Your task to perform on an android device: Add bose soundlink mini to the cart on target.com Image 0: 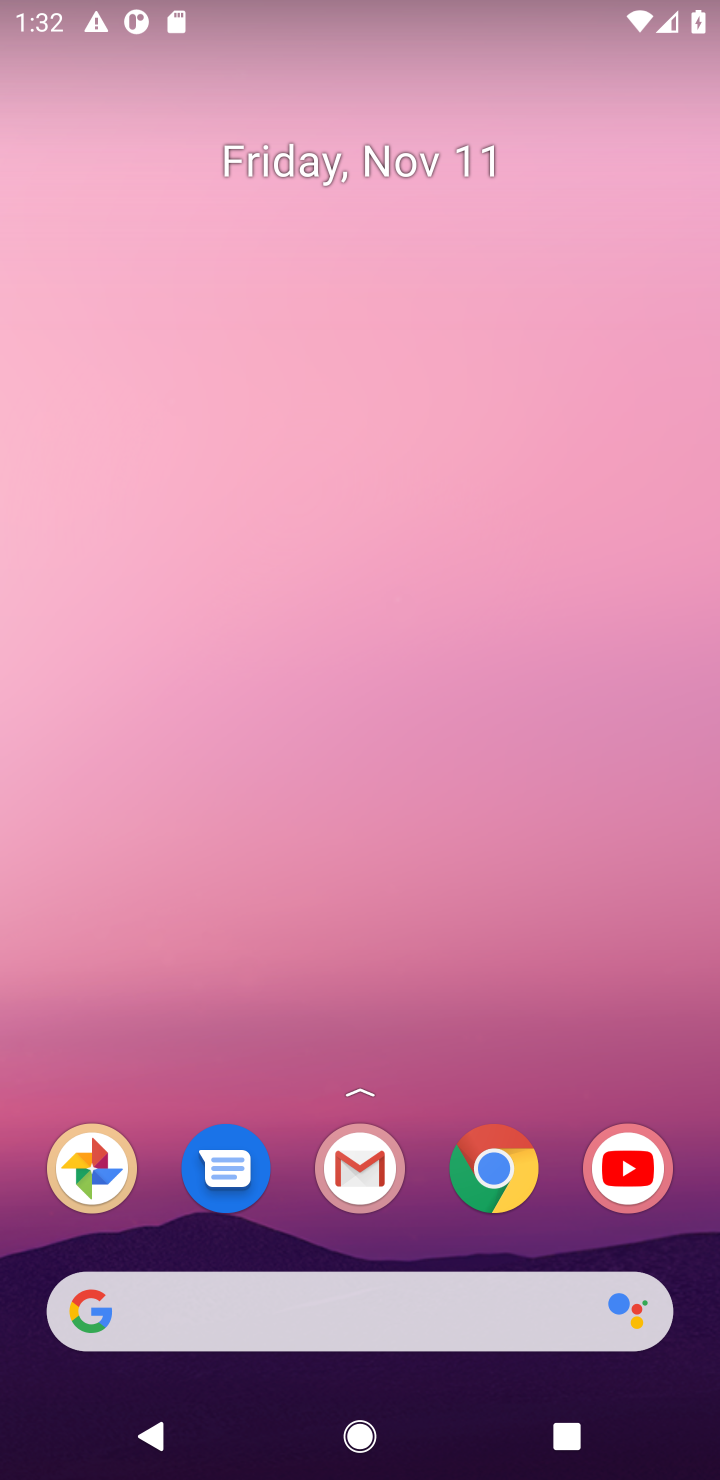
Step 0: click (505, 1170)
Your task to perform on an android device: Add bose soundlink mini to the cart on target.com Image 1: 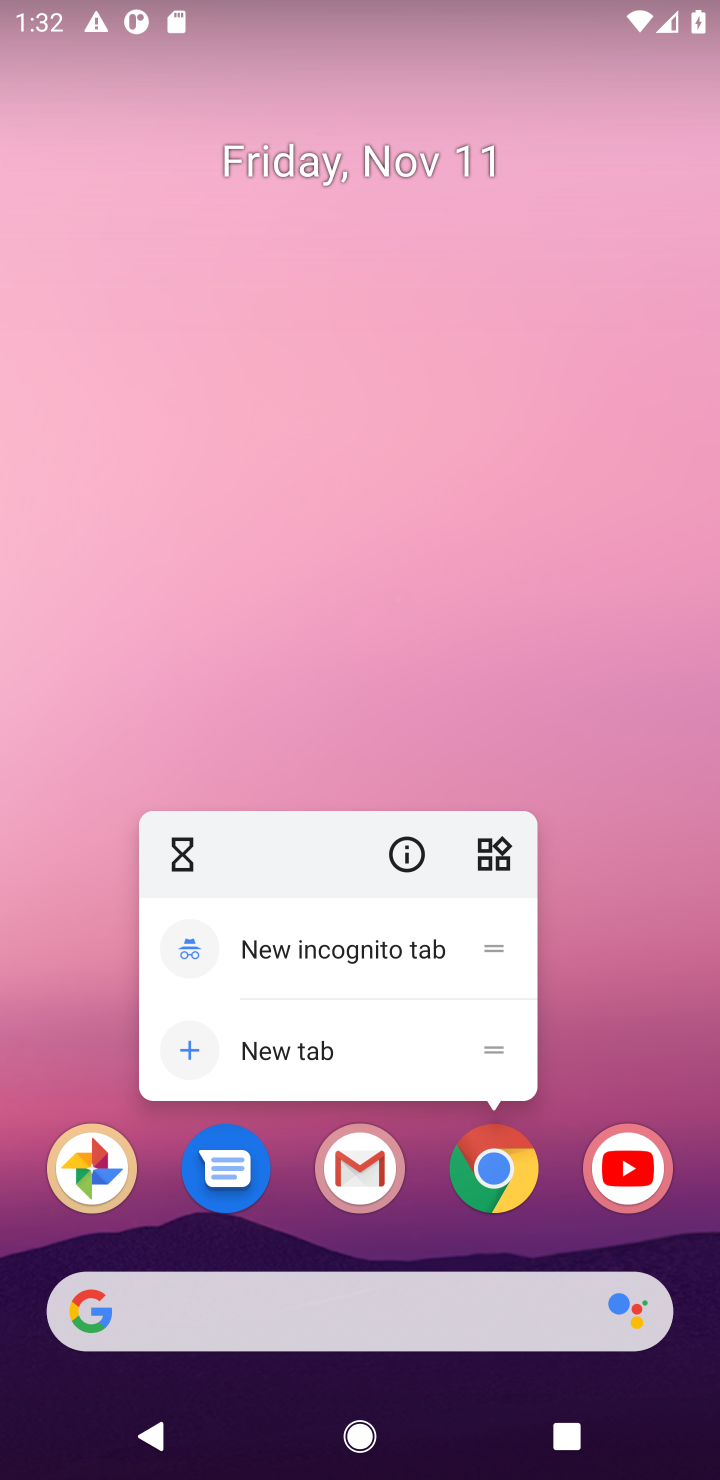
Step 1: click (496, 1182)
Your task to perform on an android device: Add bose soundlink mini to the cart on target.com Image 2: 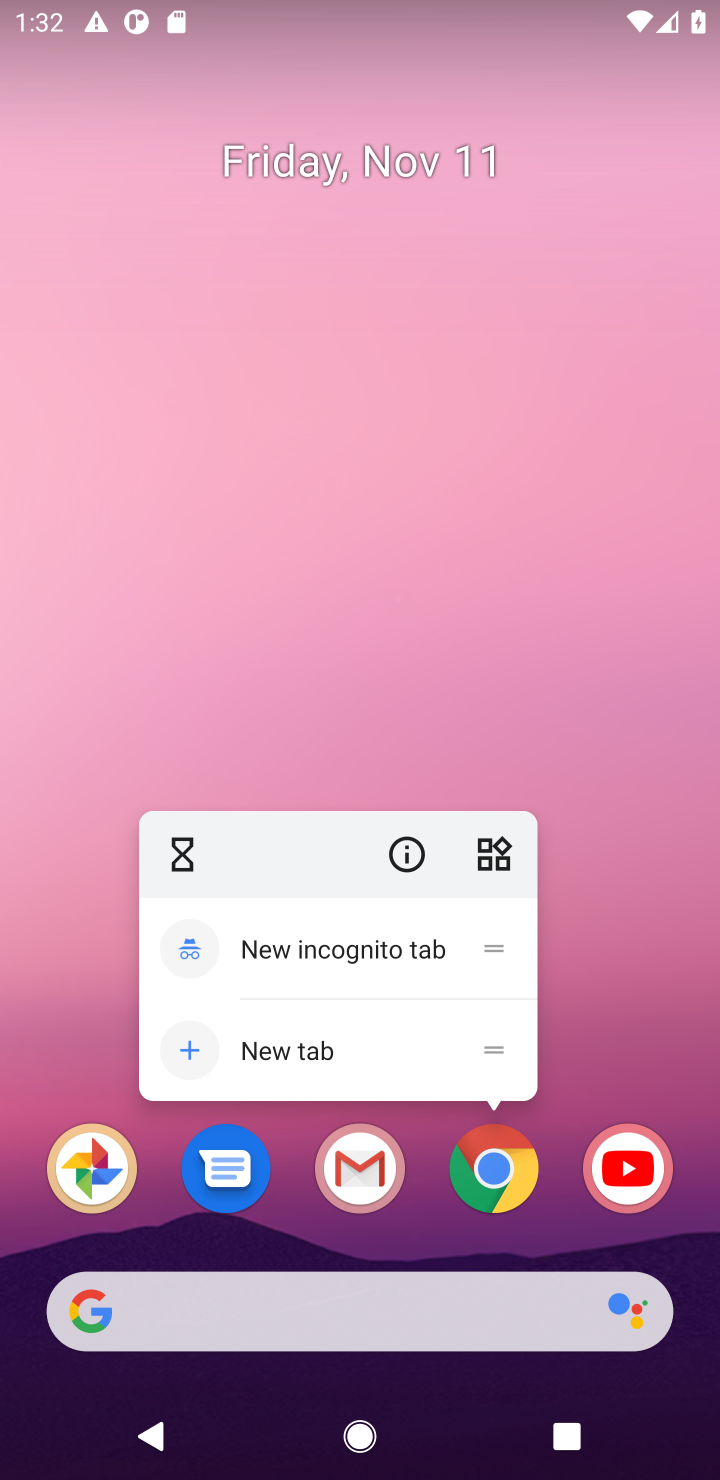
Step 2: click (496, 1182)
Your task to perform on an android device: Add bose soundlink mini to the cart on target.com Image 3: 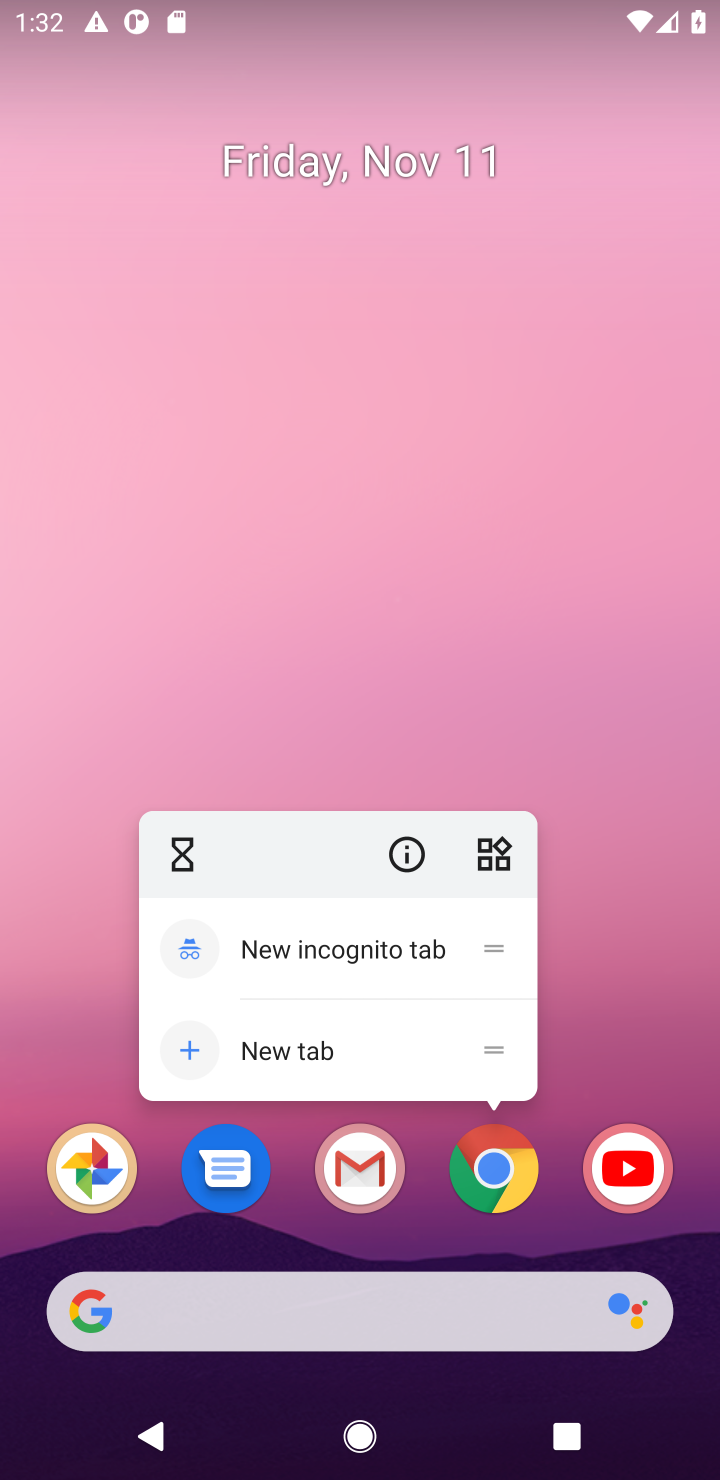
Step 3: click (502, 1175)
Your task to perform on an android device: Add bose soundlink mini to the cart on target.com Image 4: 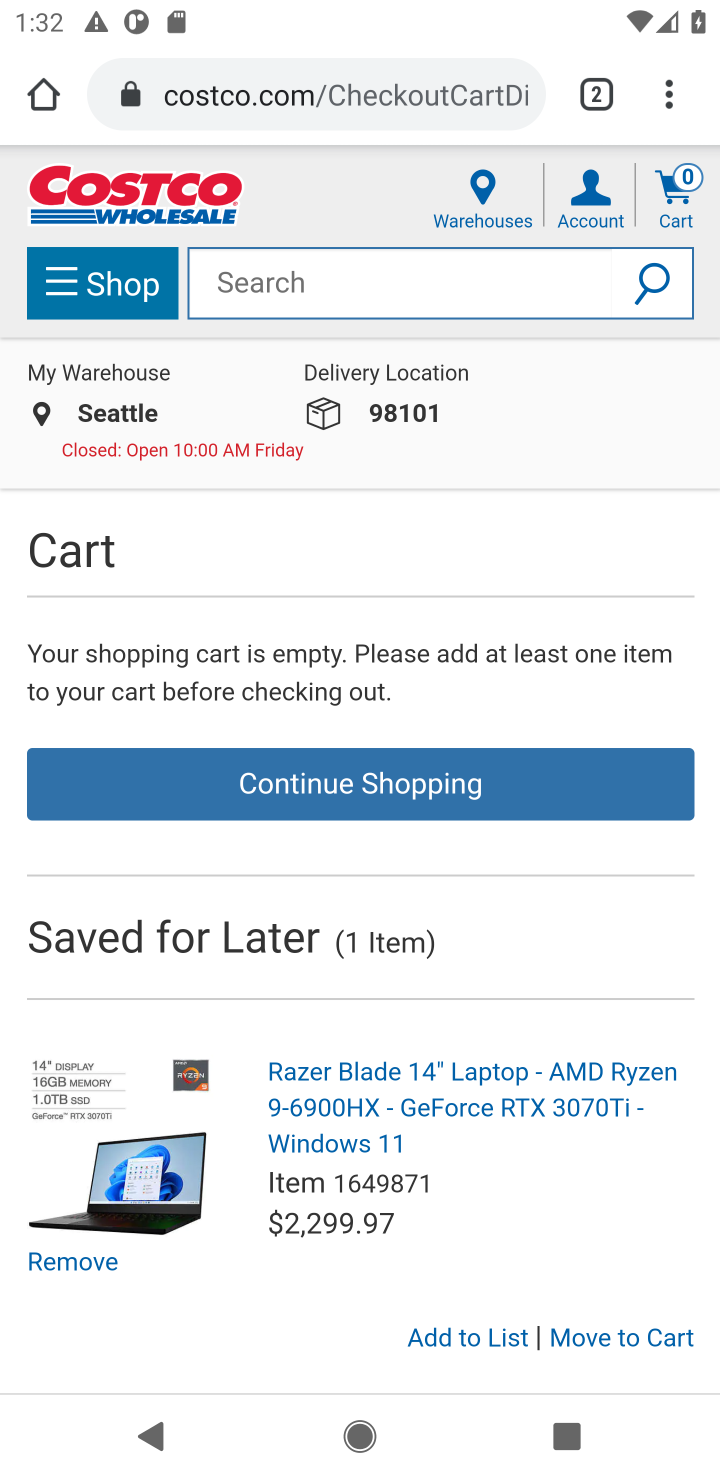
Step 4: click (331, 109)
Your task to perform on an android device: Add bose soundlink mini to the cart on target.com Image 5: 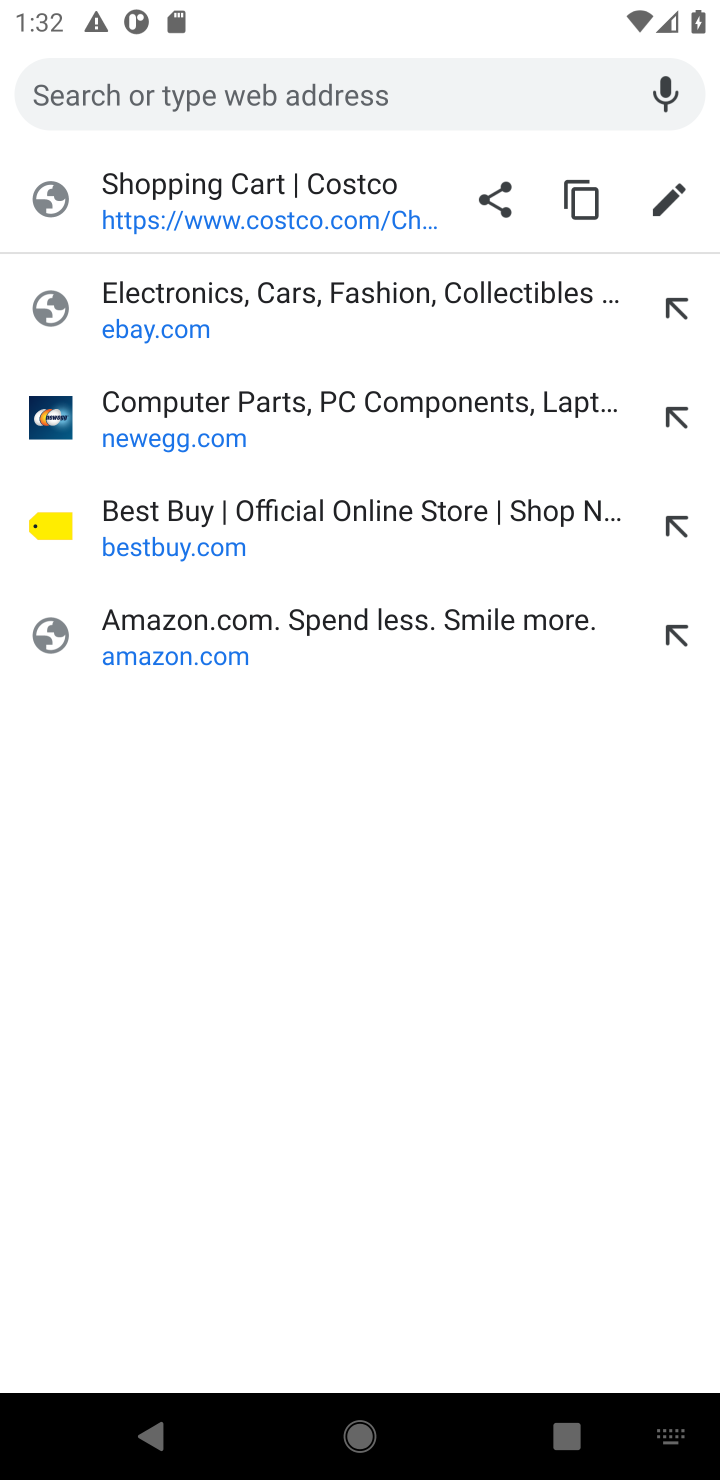
Step 5: type "target.com"
Your task to perform on an android device: Add bose soundlink mini to the cart on target.com Image 6: 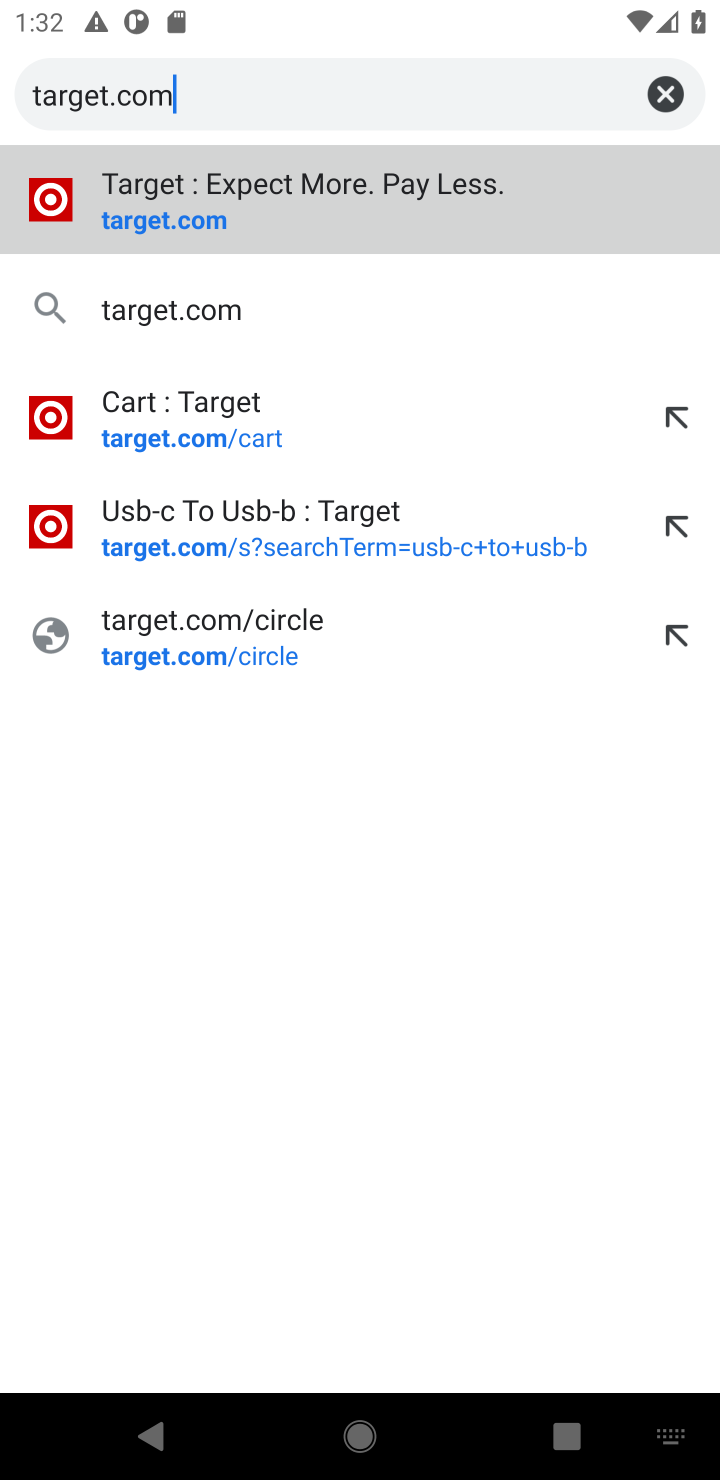
Step 6: click (212, 238)
Your task to perform on an android device: Add bose soundlink mini to the cart on target.com Image 7: 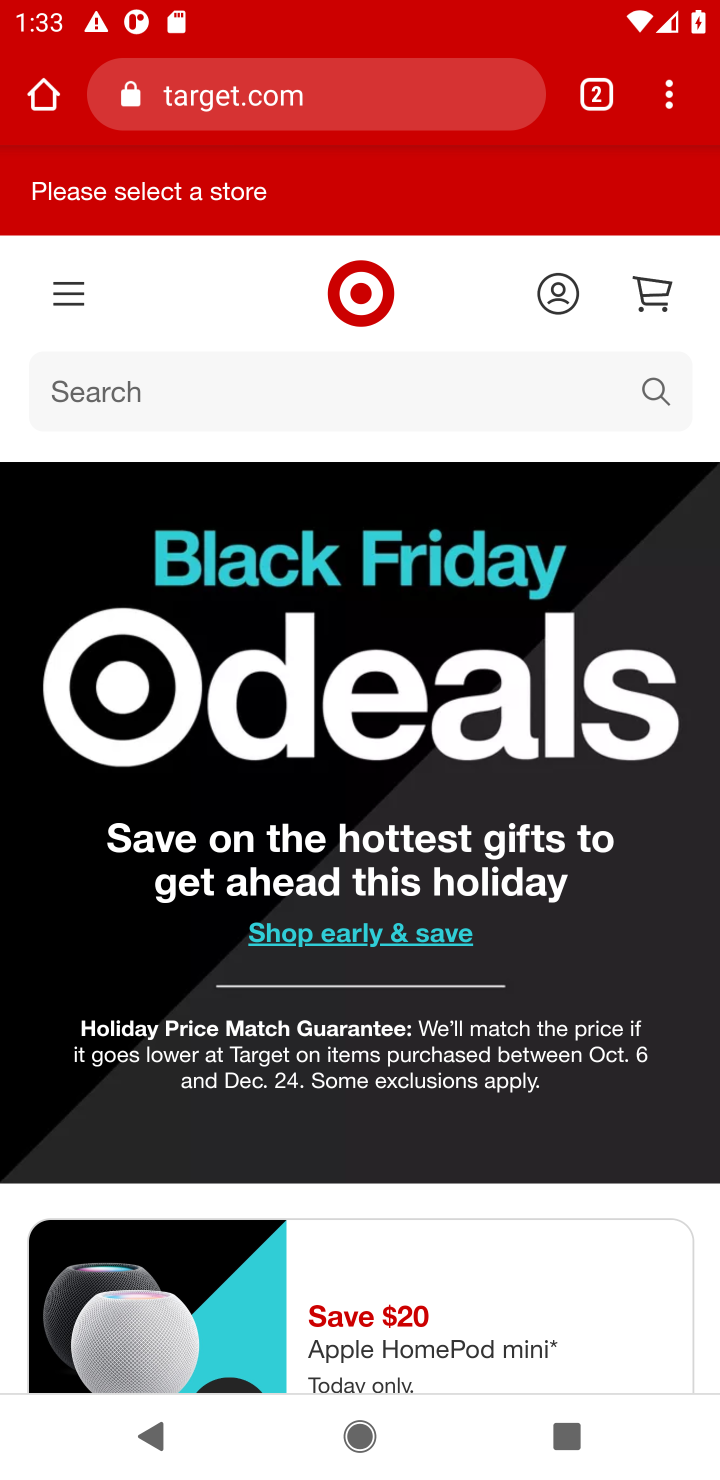
Step 7: click (649, 399)
Your task to perform on an android device: Add bose soundlink mini to the cart on target.com Image 8: 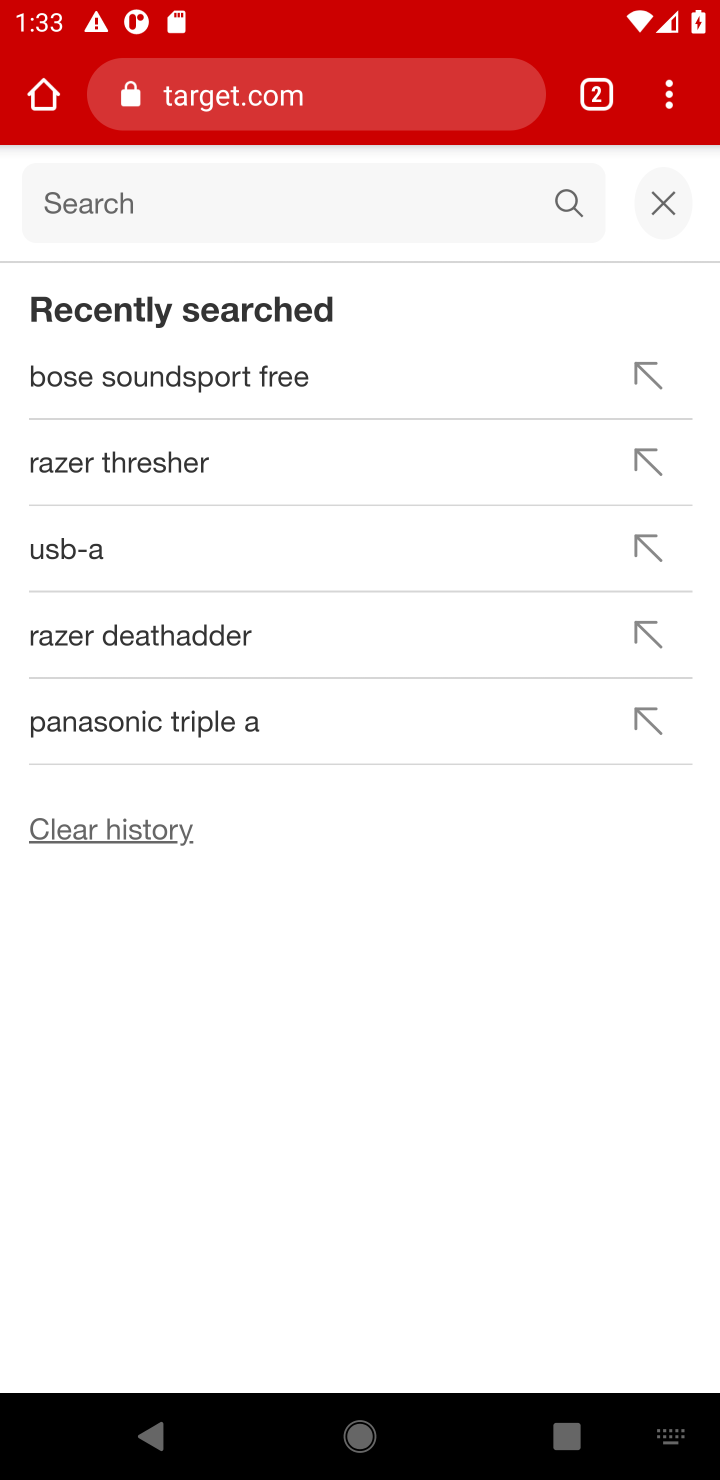
Step 8: type "bose soundlink mini"
Your task to perform on an android device: Add bose soundlink mini to the cart on target.com Image 9: 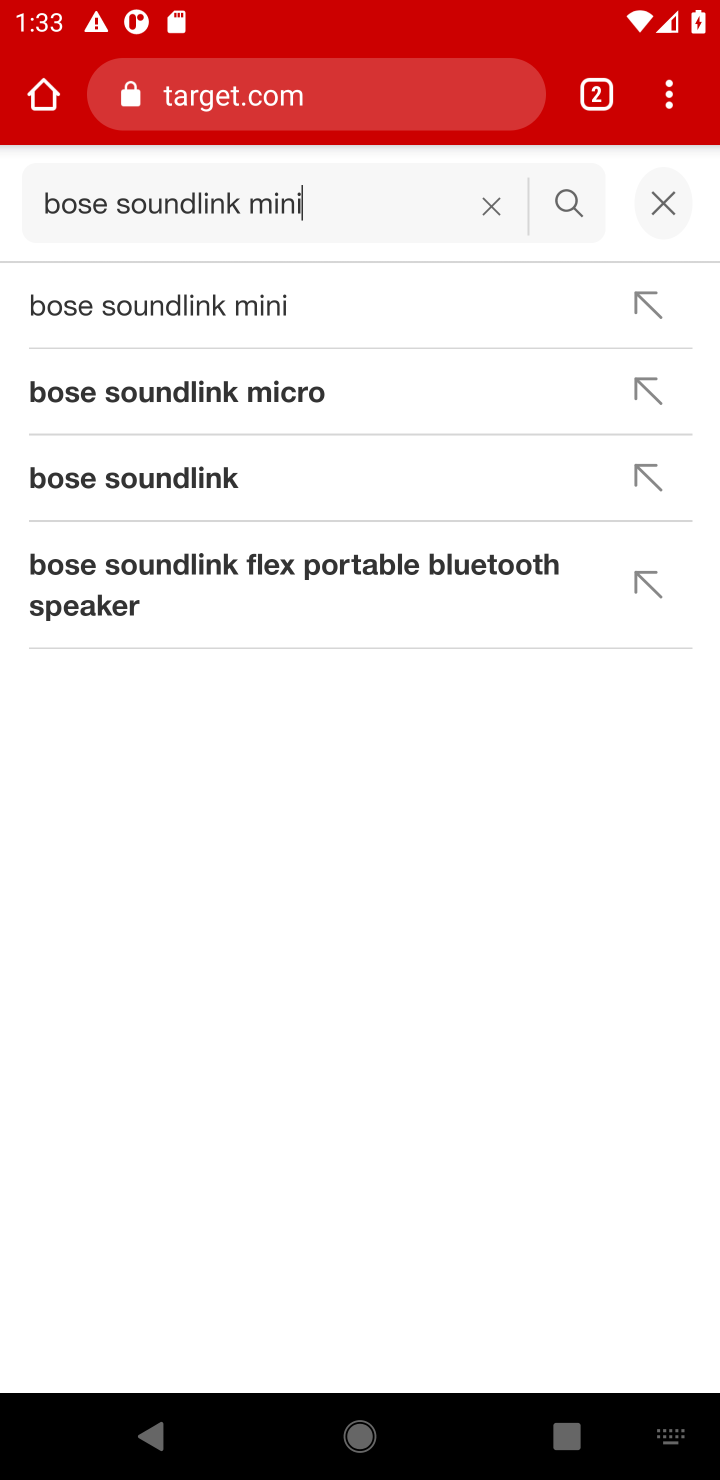
Step 9: click (201, 305)
Your task to perform on an android device: Add bose soundlink mini to the cart on target.com Image 10: 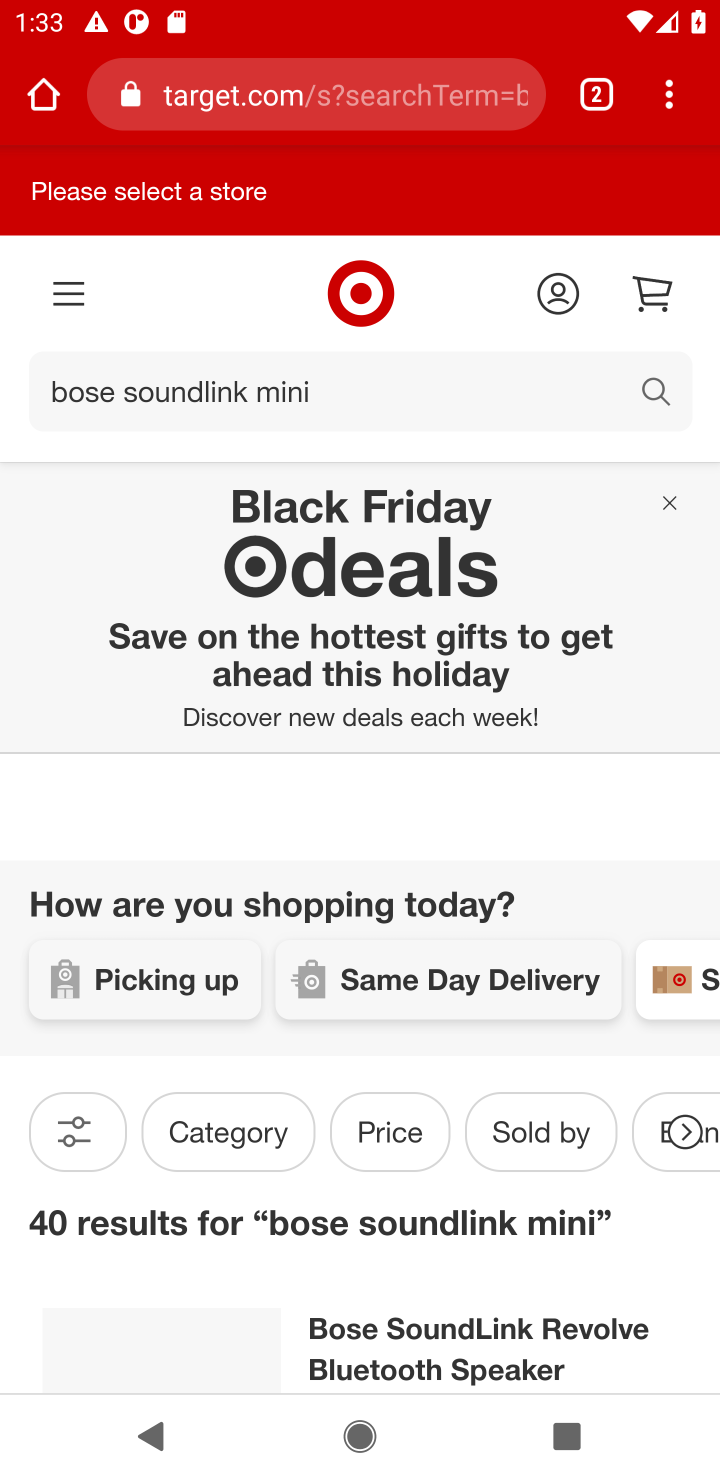
Step 10: task complete